Your task to perform on an android device: Show me recent news Image 0: 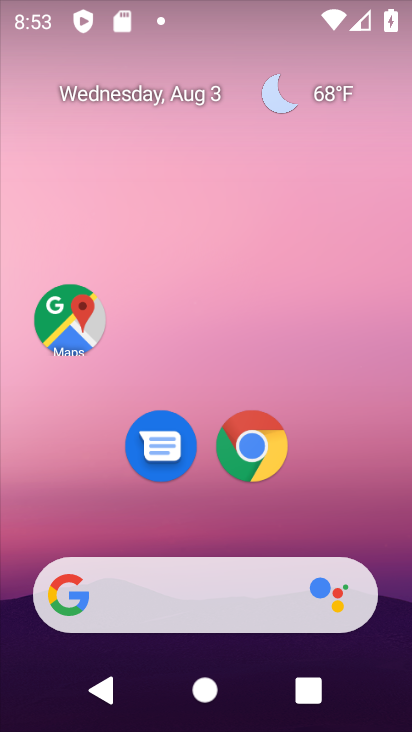
Step 0: drag from (7, 141) to (406, 132)
Your task to perform on an android device: Show me recent news Image 1: 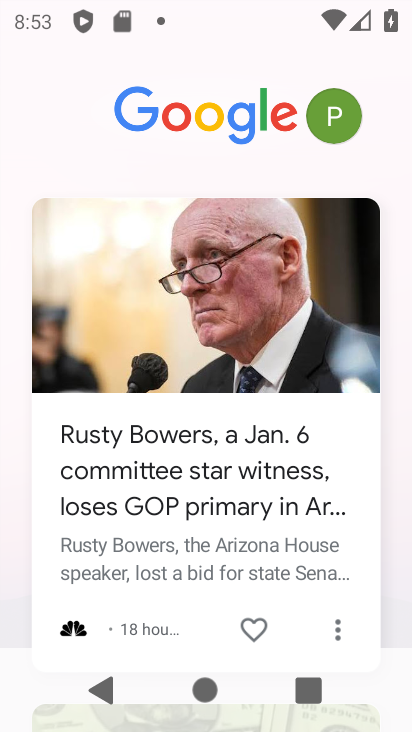
Step 1: task complete